Your task to perform on an android device: turn off data saver in the chrome app Image 0: 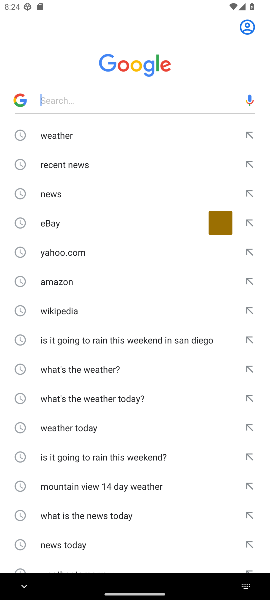
Step 0: press home button
Your task to perform on an android device: turn off data saver in the chrome app Image 1: 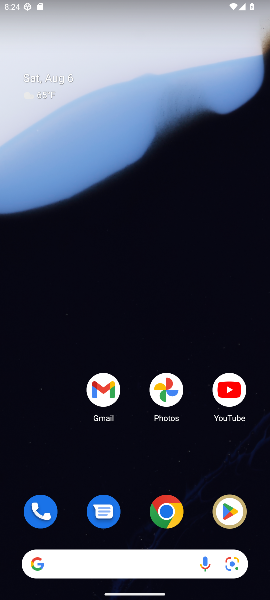
Step 1: drag from (131, 528) to (133, 119)
Your task to perform on an android device: turn off data saver in the chrome app Image 2: 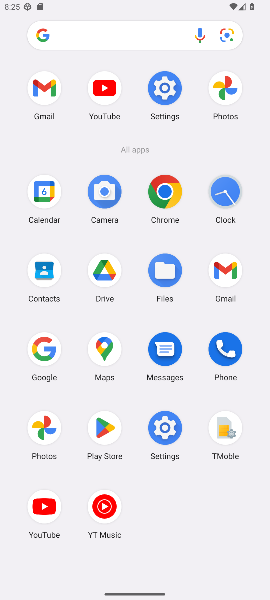
Step 2: click (165, 201)
Your task to perform on an android device: turn off data saver in the chrome app Image 3: 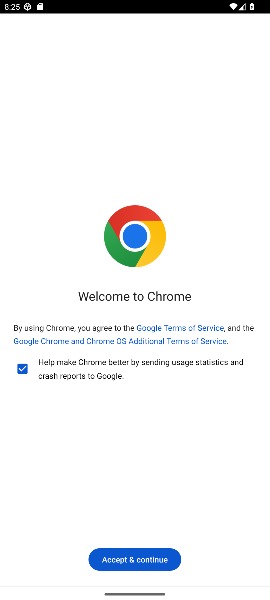
Step 3: click (102, 560)
Your task to perform on an android device: turn off data saver in the chrome app Image 4: 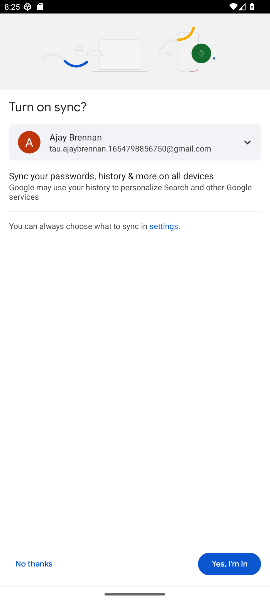
Step 4: click (218, 560)
Your task to perform on an android device: turn off data saver in the chrome app Image 5: 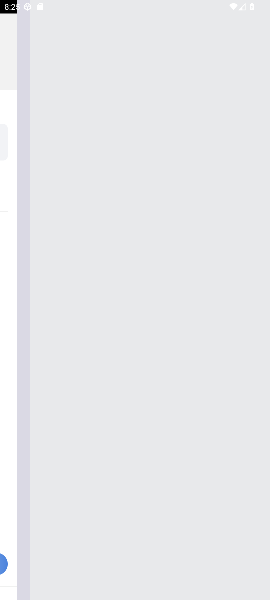
Step 5: click (218, 560)
Your task to perform on an android device: turn off data saver in the chrome app Image 6: 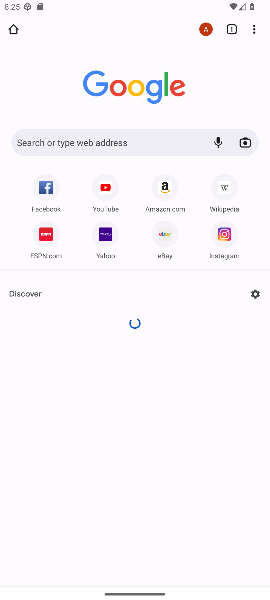
Step 6: drag from (255, 20) to (151, 258)
Your task to perform on an android device: turn off data saver in the chrome app Image 7: 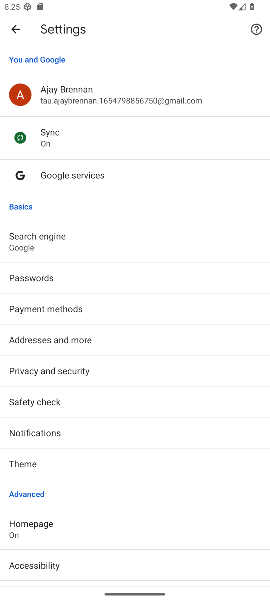
Step 7: drag from (57, 470) to (79, 204)
Your task to perform on an android device: turn off data saver in the chrome app Image 8: 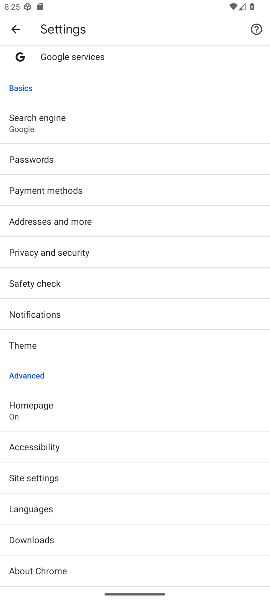
Step 8: drag from (34, 542) to (55, 526)
Your task to perform on an android device: turn off data saver in the chrome app Image 9: 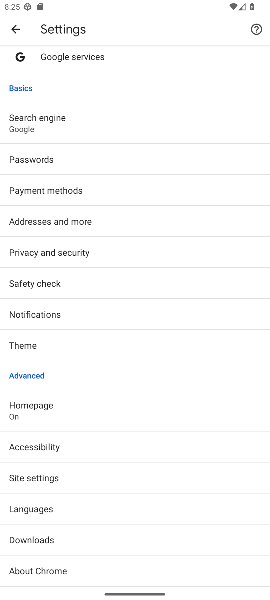
Step 9: click (80, 250)
Your task to perform on an android device: turn off data saver in the chrome app Image 10: 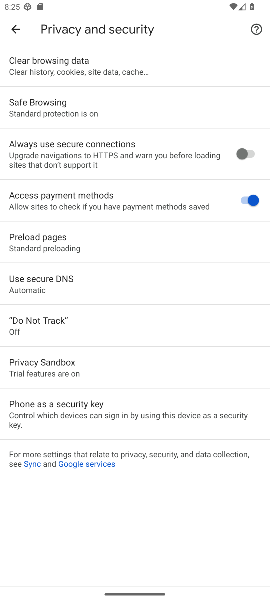
Step 10: click (9, 30)
Your task to perform on an android device: turn off data saver in the chrome app Image 11: 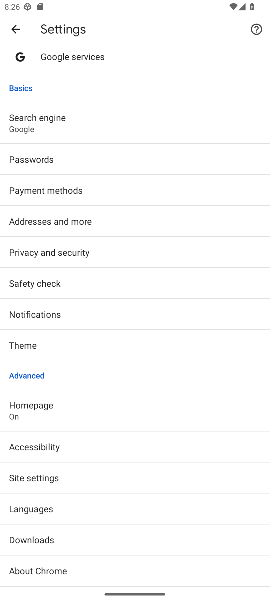
Step 11: task complete